Your task to perform on an android device: View the shopping cart on bestbuy. Image 0: 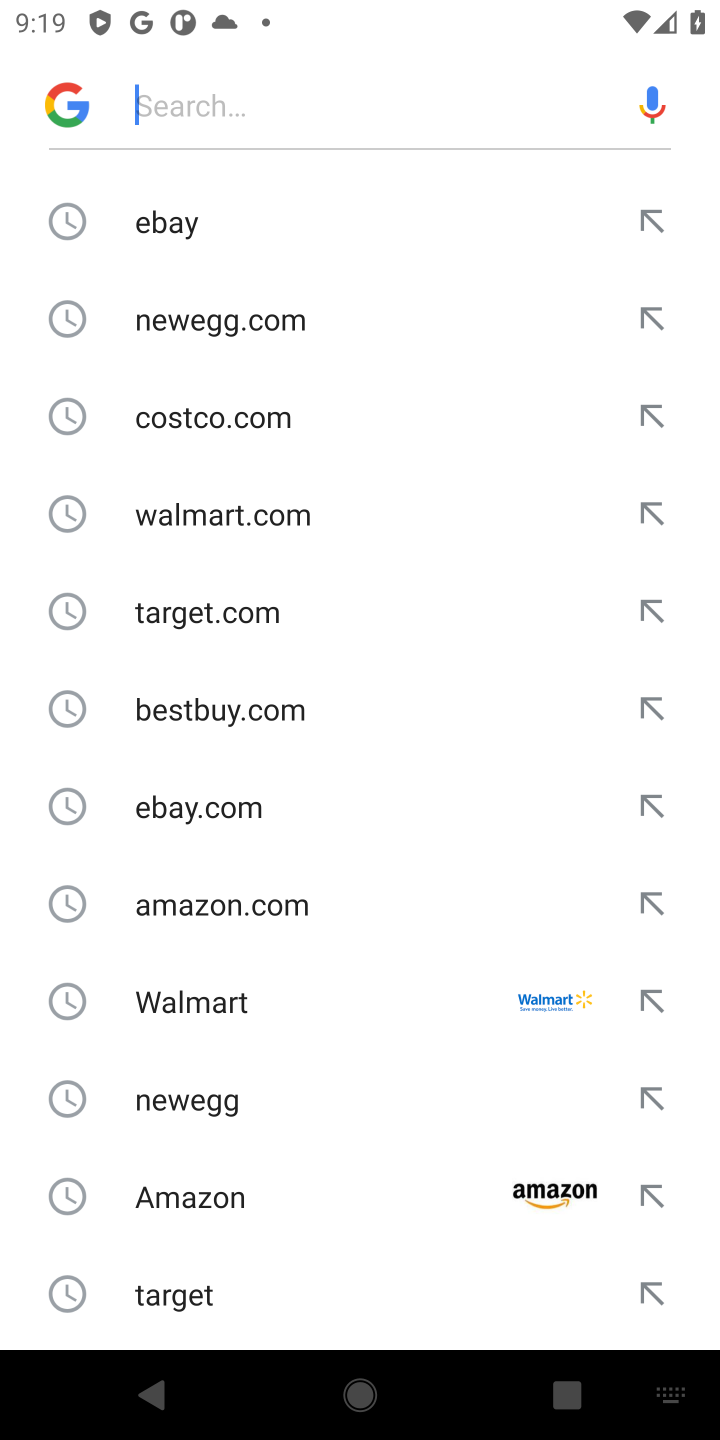
Step 0: type "bestbuy"
Your task to perform on an android device: View the shopping cart on bestbuy. Image 1: 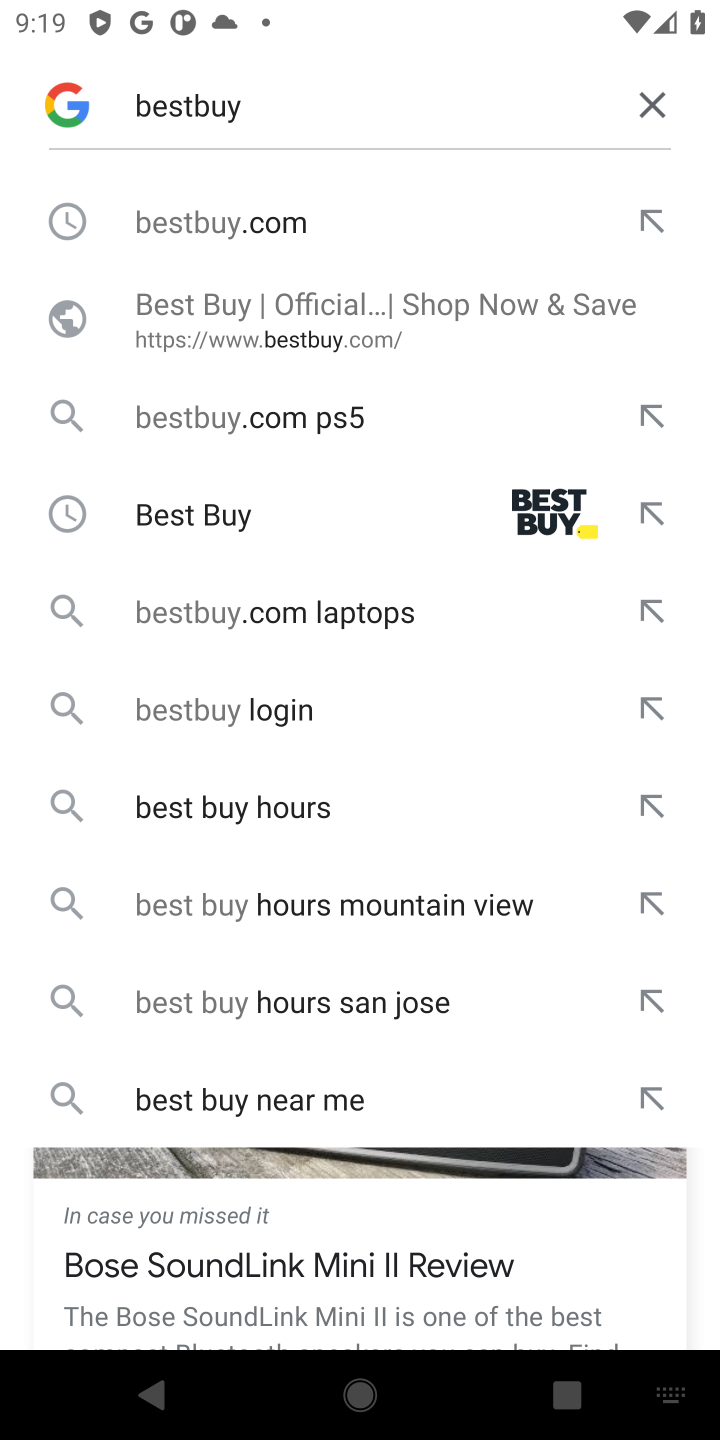
Step 1: click (247, 229)
Your task to perform on an android device: View the shopping cart on bestbuy. Image 2: 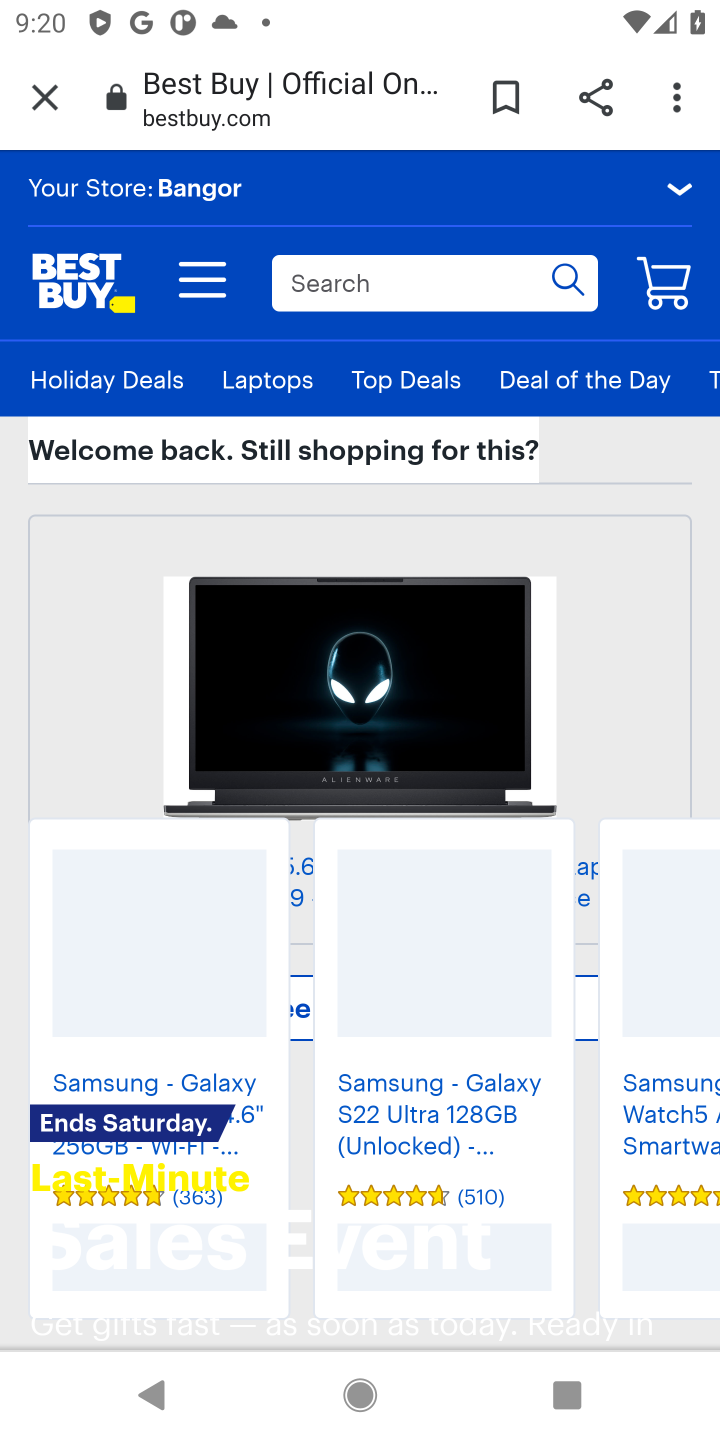
Step 2: click (650, 299)
Your task to perform on an android device: View the shopping cart on bestbuy. Image 3: 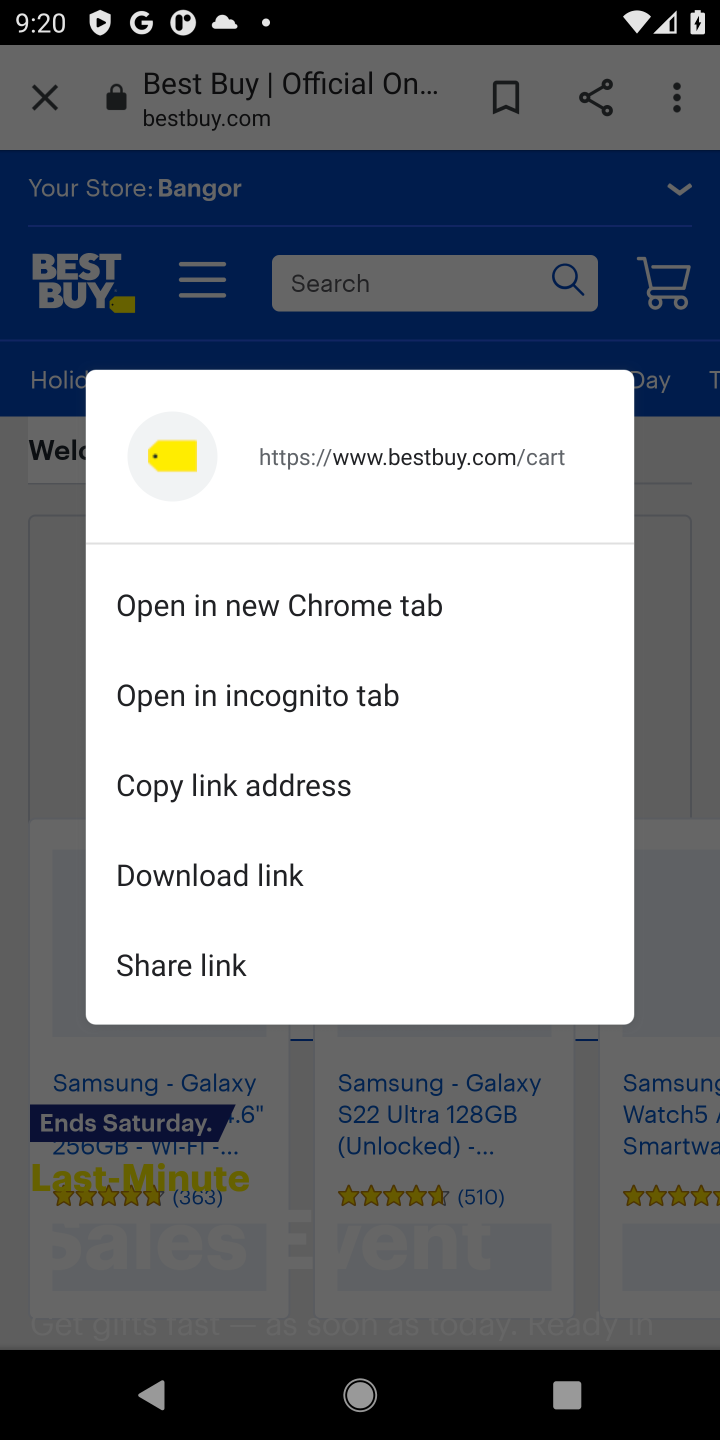
Step 3: click (671, 283)
Your task to perform on an android device: View the shopping cart on bestbuy. Image 4: 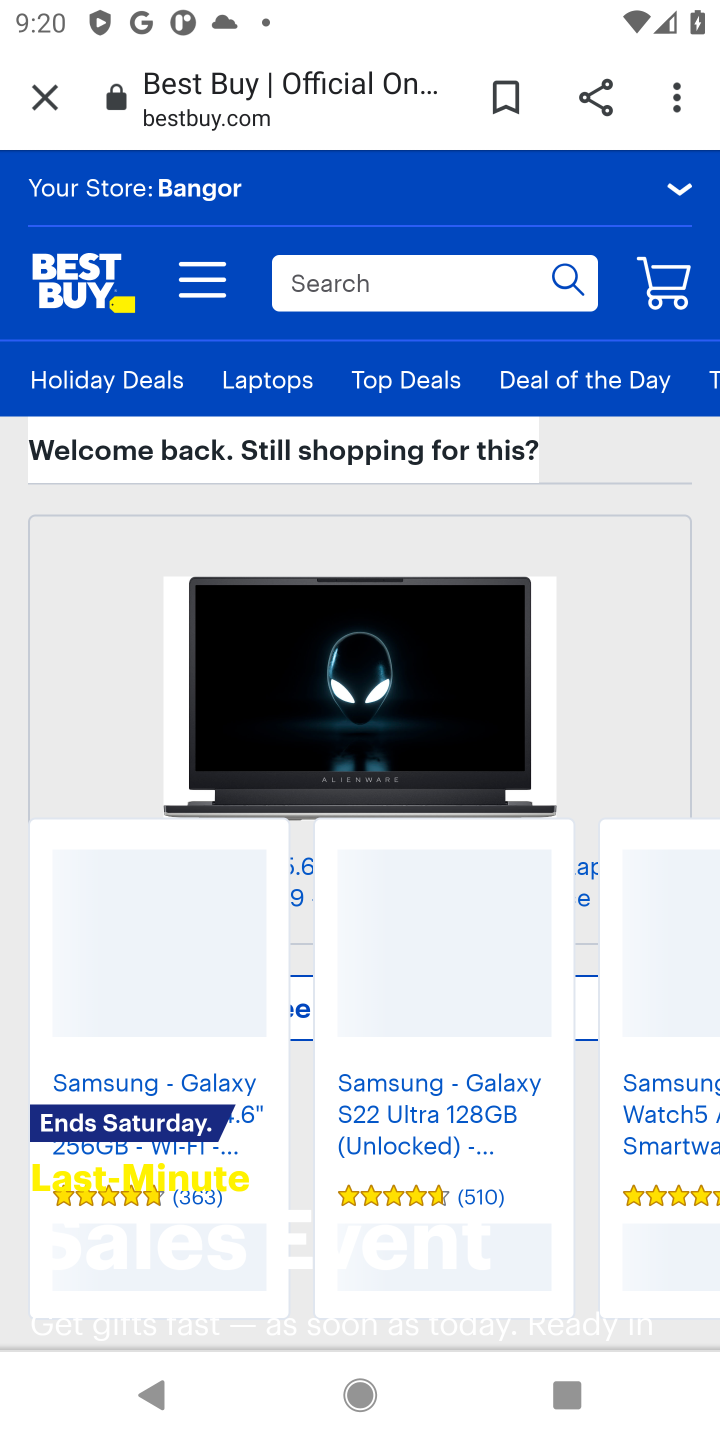
Step 4: click (674, 302)
Your task to perform on an android device: View the shopping cart on bestbuy. Image 5: 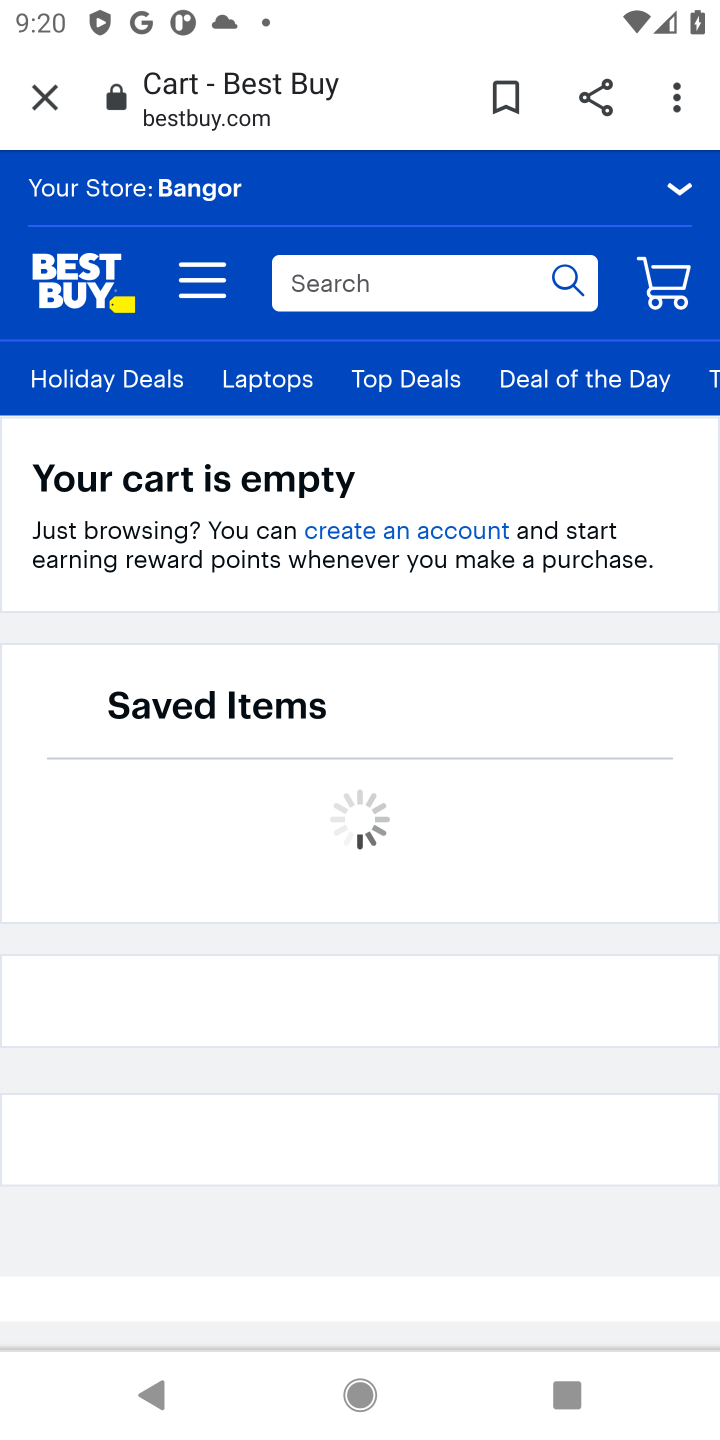
Step 5: task complete